Your task to perform on an android device: check the backup settings in the google photos Image 0: 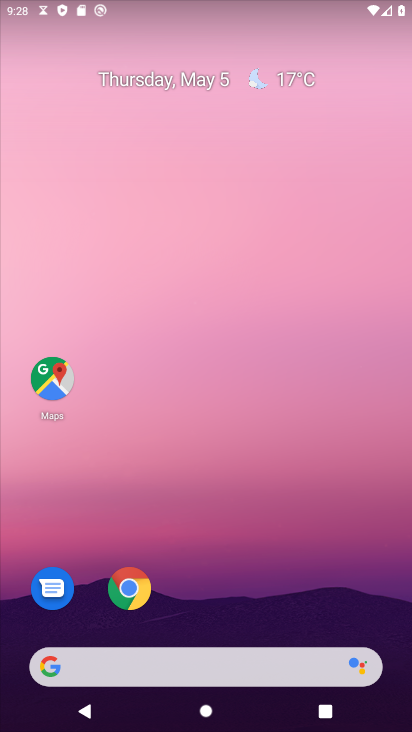
Step 0: drag from (287, 588) to (303, 252)
Your task to perform on an android device: check the backup settings in the google photos Image 1: 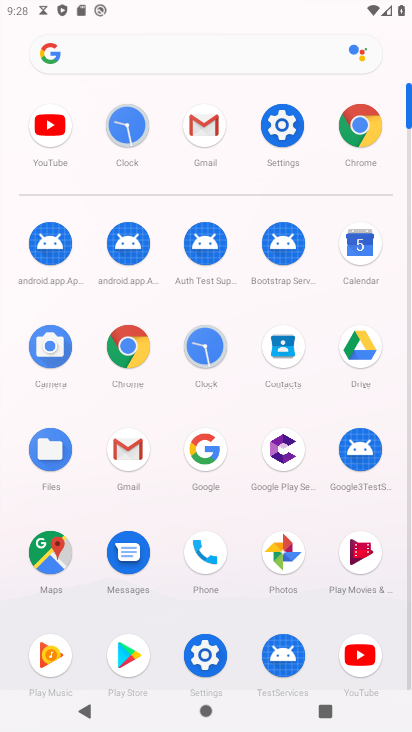
Step 1: click (284, 553)
Your task to perform on an android device: check the backup settings in the google photos Image 2: 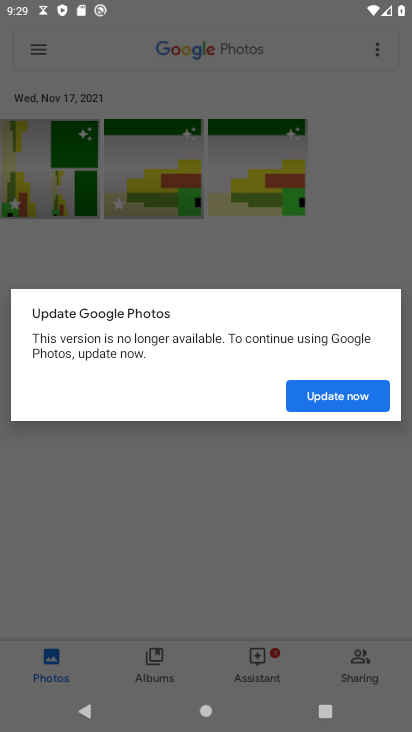
Step 2: click (296, 401)
Your task to perform on an android device: check the backup settings in the google photos Image 3: 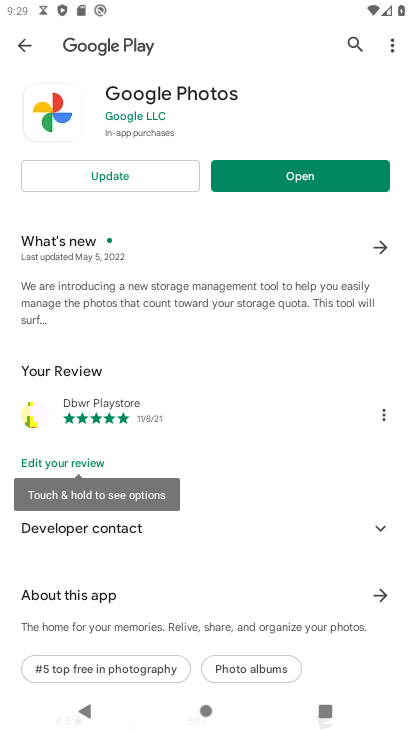
Step 3: press back button
Your task to perform on an android device: check the backup settings in the google photos Image 4: 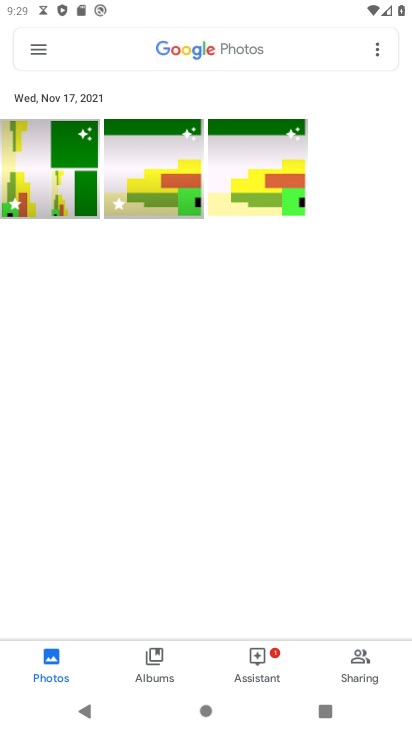
Step 4: click (38, 46)
Your task to perform on an android device: check the backup settings in the google photos Image 5: 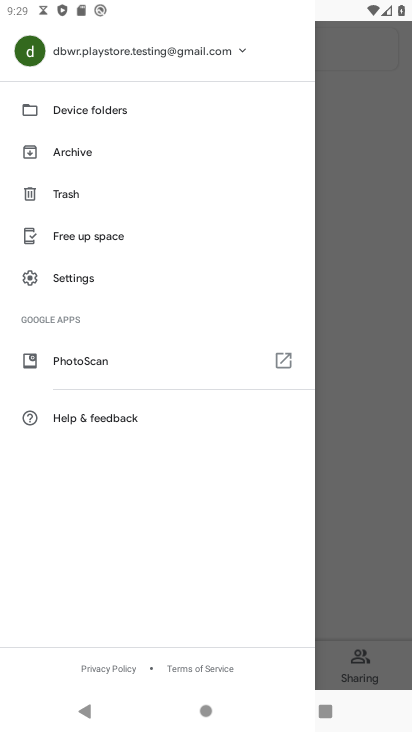
Step 5: click (80, 271)
Your task to perform on an android device: check the backup settings in the google photos Image 6: 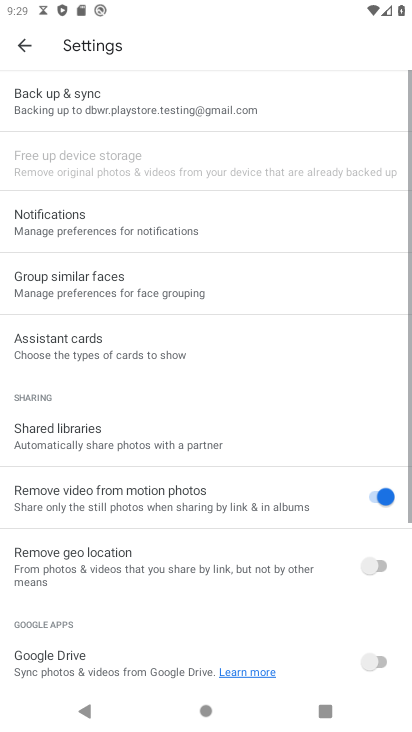
Step 6: click (102, 105)
Your task to perform on an android device: check the backup settings in the google photos Image 7: 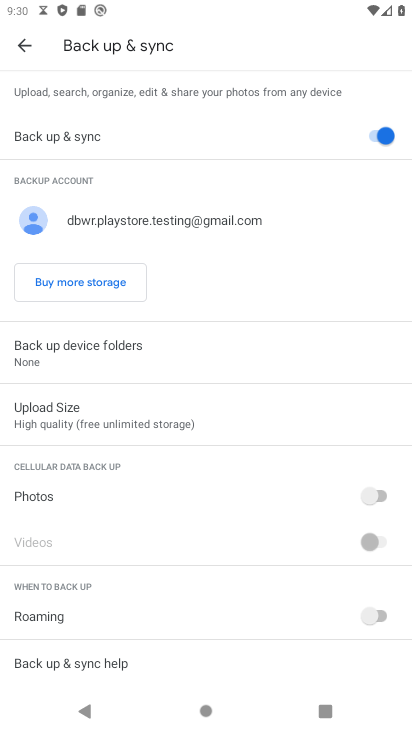
Step 7: task complete